Your task to perform on an android device: change the clock display to analog Image 0: 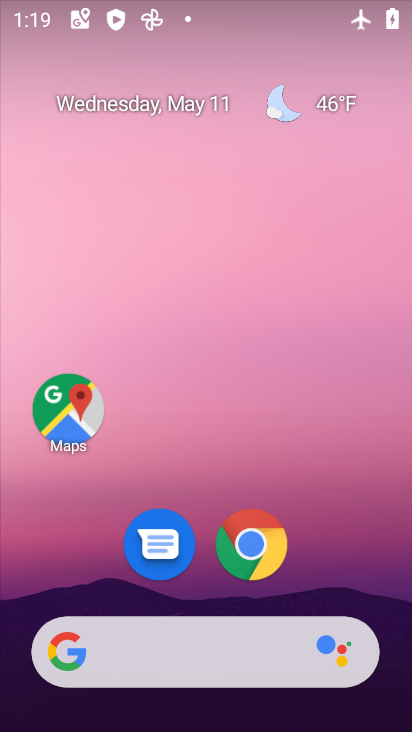
Step 0: drag from (391, 641) to (251, 126)
Your task to perform on an android device: change the clock display to analog Image 1: 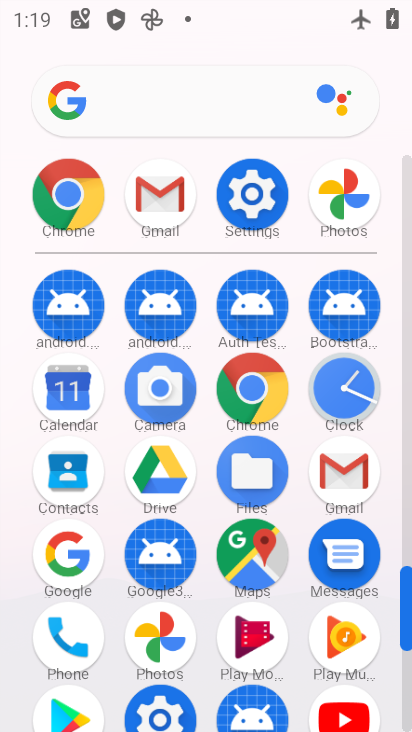
Step 1: click (339, 386)
Your task to perform on an android device: change the clock display to analog Image 2: 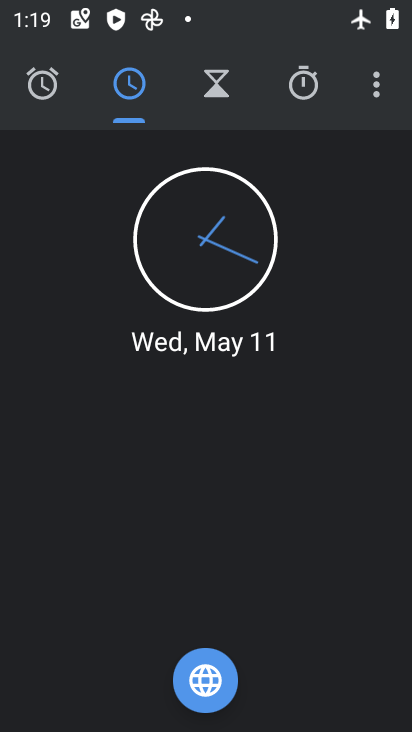
Step 2: click (374, 94)
Your task to perform on an android device: change the clock display to analog Image 3: 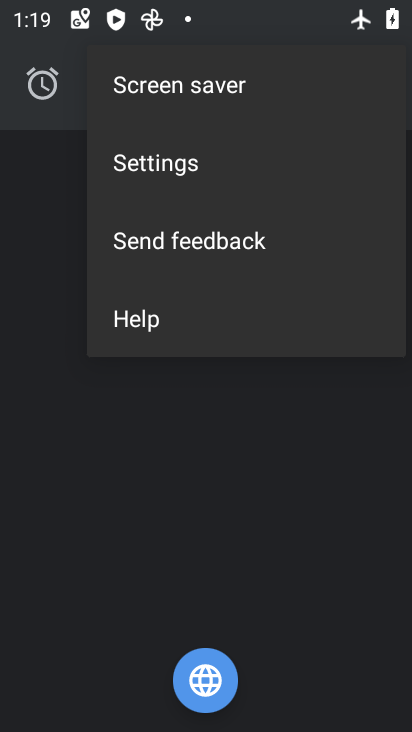
Step 3: click (142, 160)
Your task to perform on an android device: change the clock display to analog Image 4: 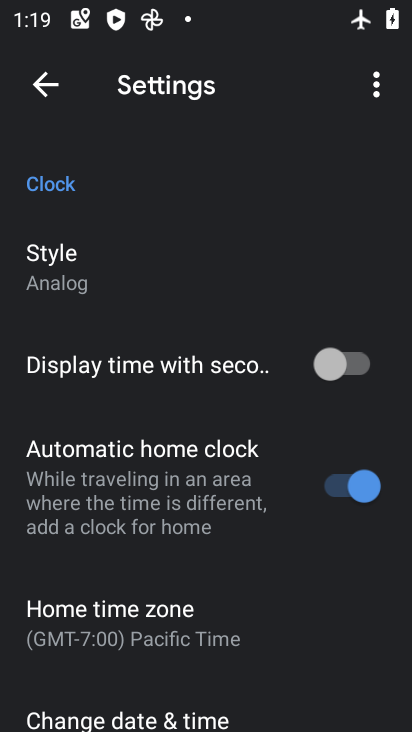
Step 4: task complete